Your task to perform on an android device: Is it going to rain today? Image 0: 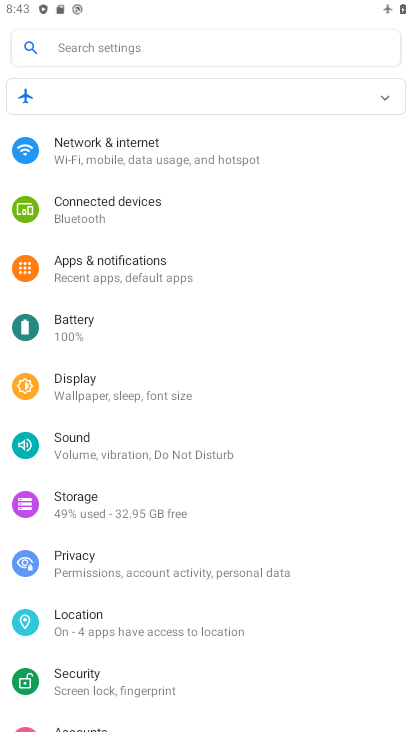
Step 0: press home button
Your task to perform on an android device: Is it going to rain today? Image 1: 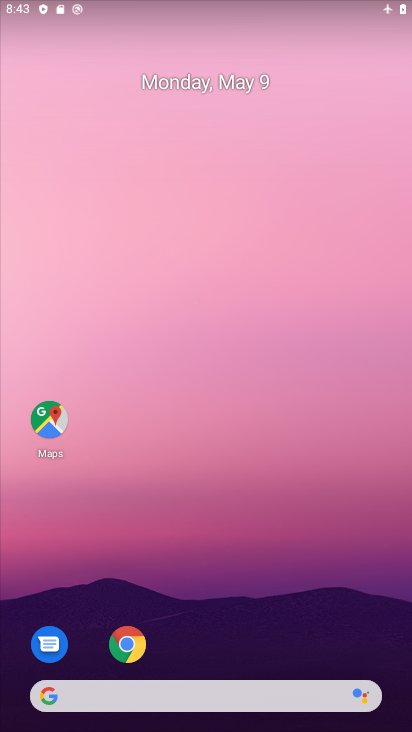
Step 1: click (146, 686)
Your task to perform on an android device: Is it going to rain today? Image 2: 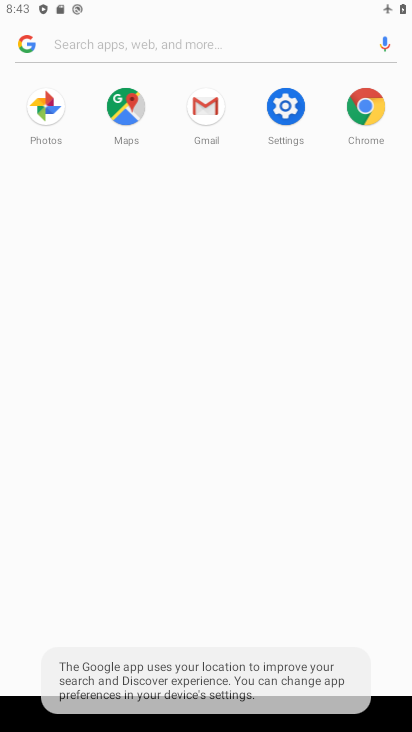
Step 2: click (161, 42)
Your task to perform on an android device: Is it going to rain today? Image 3: 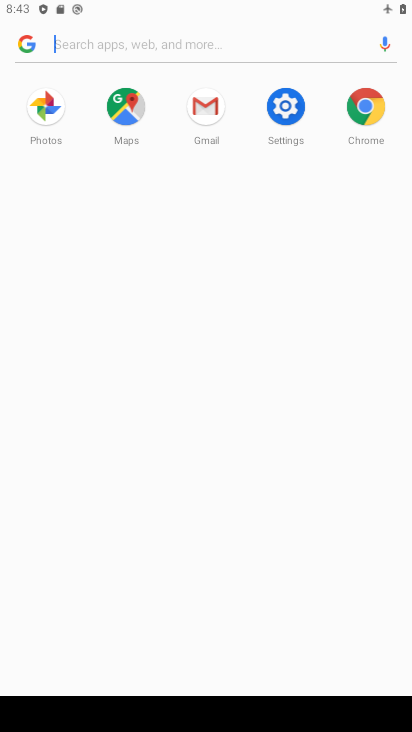
Step 3: type "weather"
Your task to perform on an android device: Is it going to rain today? Image 4: 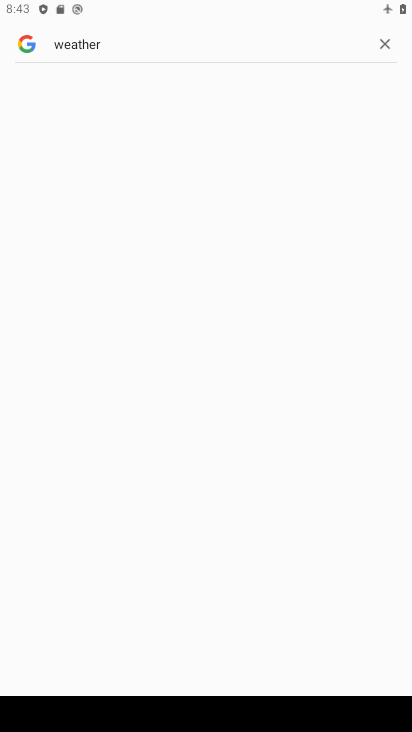
Step 4: task complete